Your task to perform on an android device: snooze an email in the gmail app Image 0: 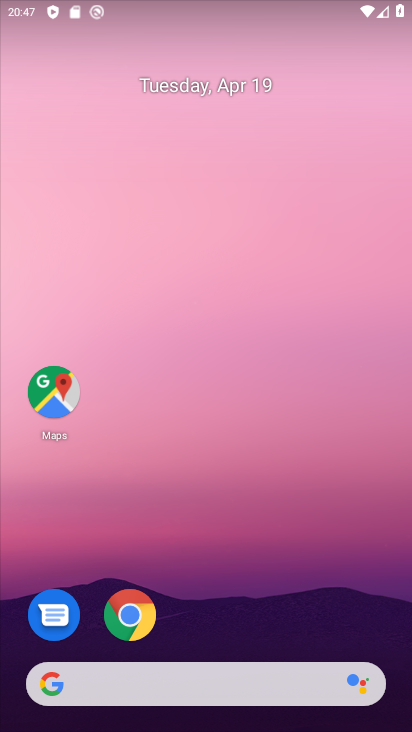
Step 0: drag from (219, 664) to (245, 303)
Your task to perform on an android device: snooze an email in the gmail app Image 1: 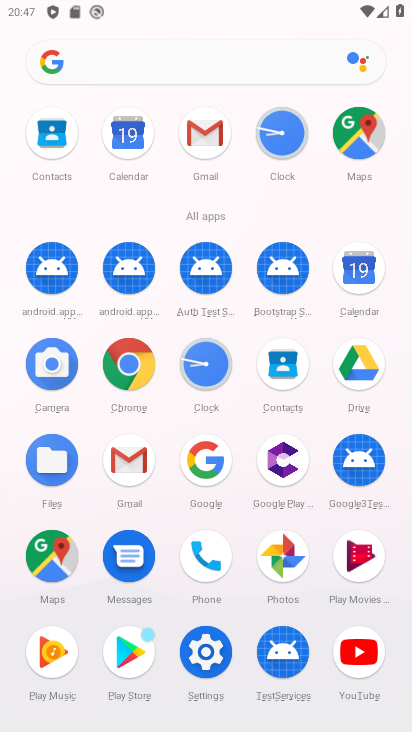
Step 1: click (213, 142)
Your task to perform on an android device: snooze an email in the gmail app Image 2: 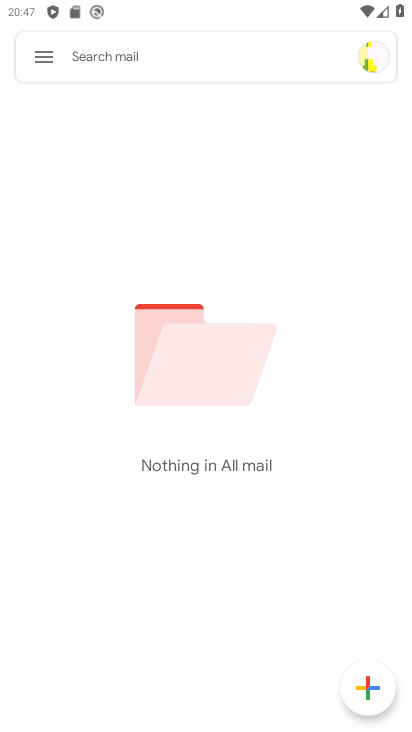
Step 2: click (35, 56)
Your task to perform on an android device: snooze an email in the gmail app Image 3: 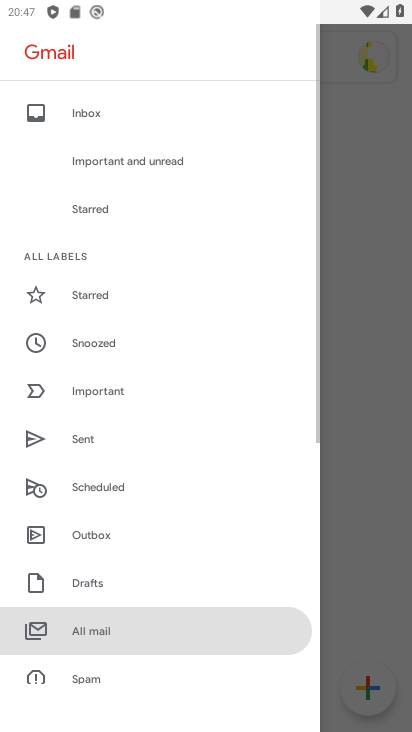
Step 3: click (70, 118)
Your task to perform on an android device: snooze an email in the gmail app Image 4: 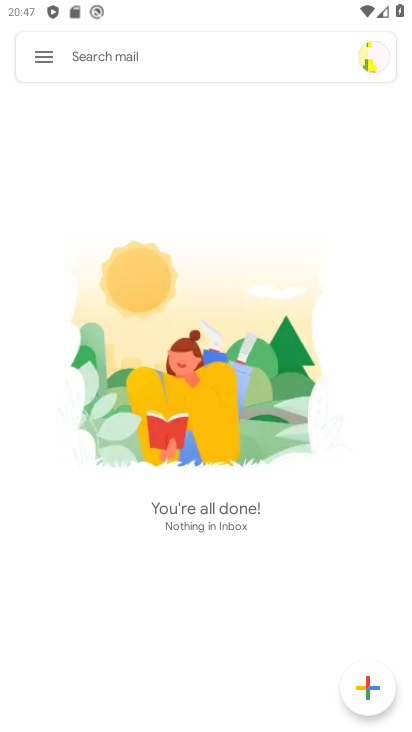
Step 4: task complete